Your task to perform on an android device: Open calendar and show me the first week of next month Image 0: 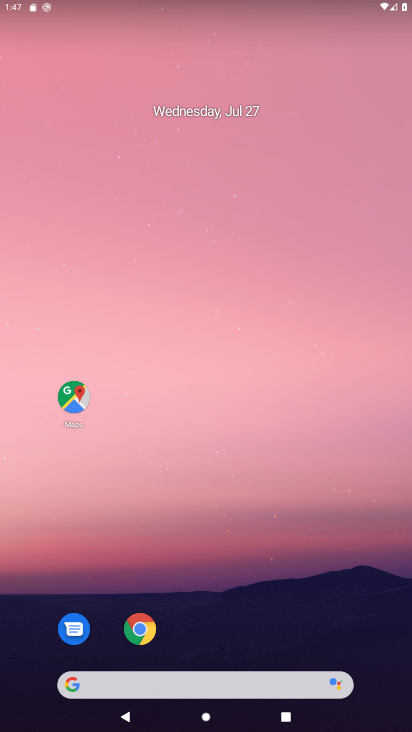
Step 0: drag from (256, 614) to (208, 75)
Your task to perform on an android device: Open calendar and show me the first week of next month Image 1: 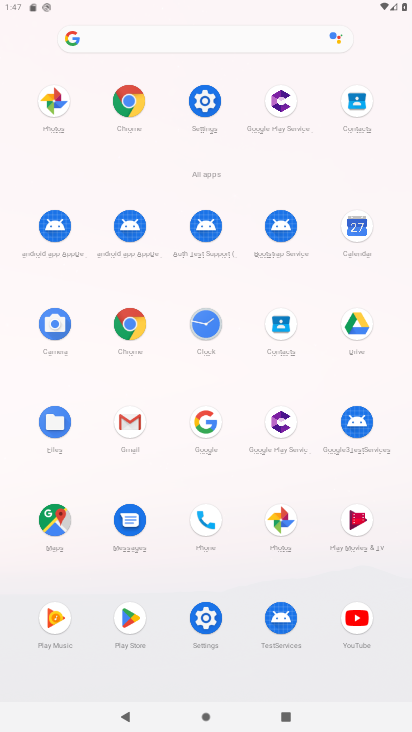
Step 1: click (352, 219)
Your task to perform on an android device: Open calendar and show me the first week of next month Image 2: 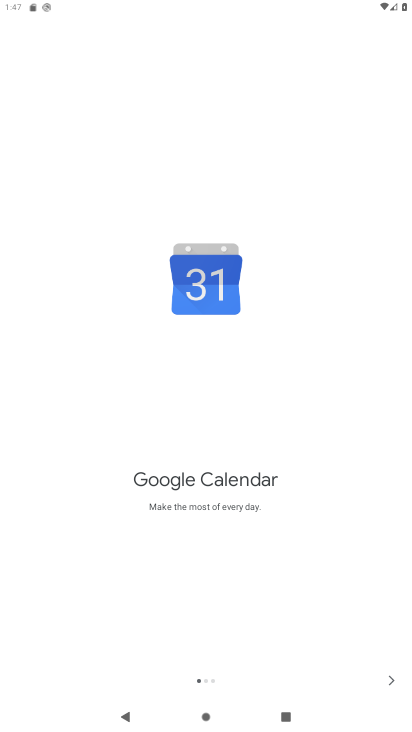
Step 2: click (391, 680)
Your task to perform on an android device: Open calendar and show me the first week of next month Image 3: 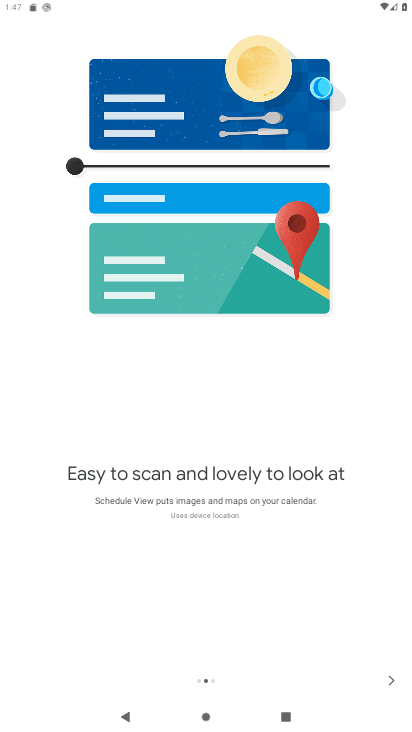
Step 3: click (391, 680)
Your task to perform on an android device: Open calendar and show me the first week of next month Image 4: 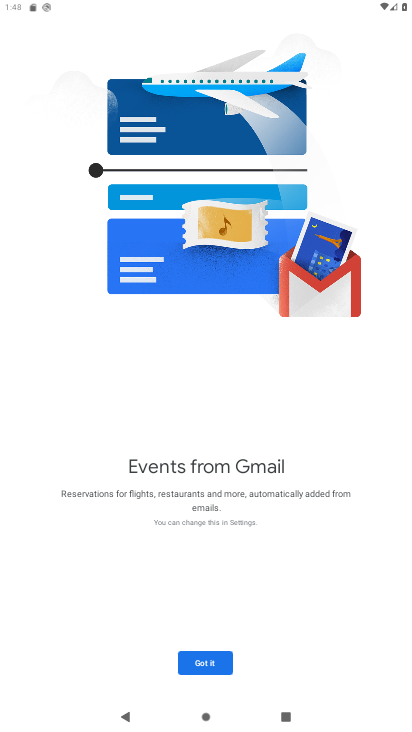
Step 4: click (193, 664)
Your task to perform on an android device: Open calendar and show me the first week of next month Image 5: 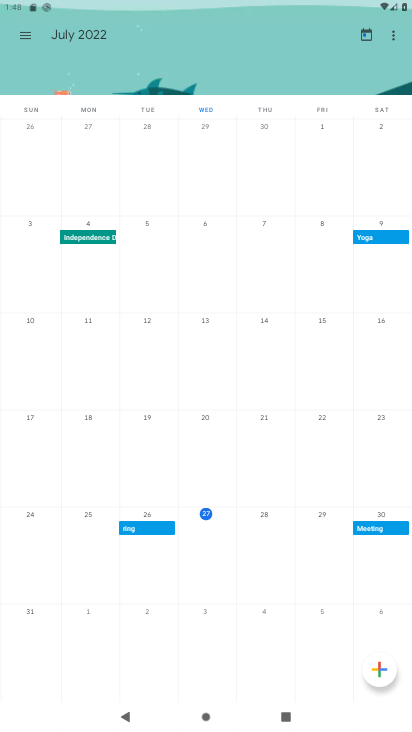
Step 5: drag from (385, 487) to (69, 474)
Your task to perform on an android device: Open calendar and show me the first week of next month Image 6: 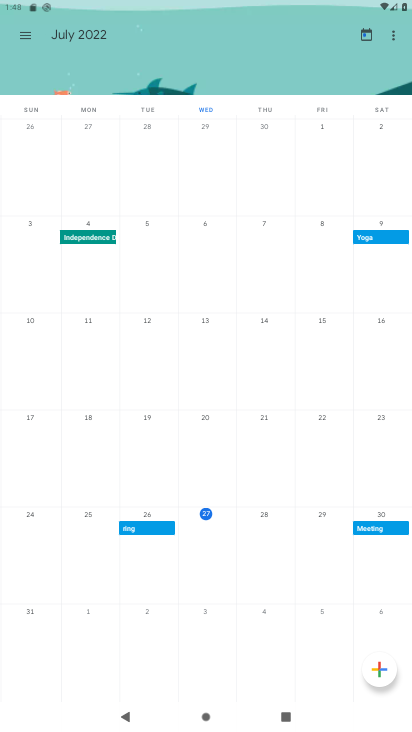
Step 6: drag from (390, 467) to (0, 469)
Your task to perform on an android device: Open calendar and show me the first week of next month Image 7: 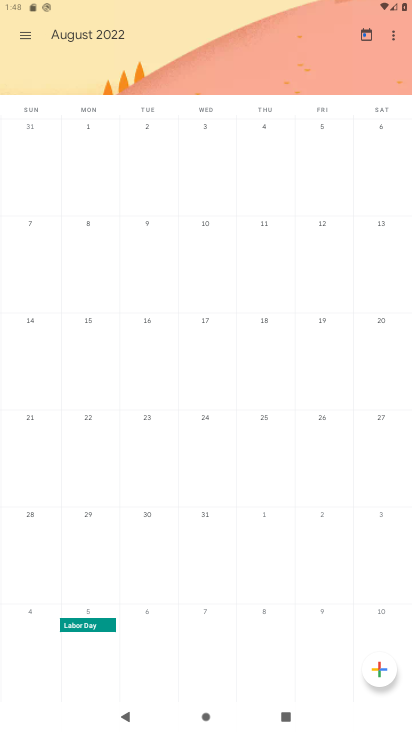
Step 7: click (101, 179)
Your task to perform on an android device: Open calendar and show me the first week of next month Image 8: 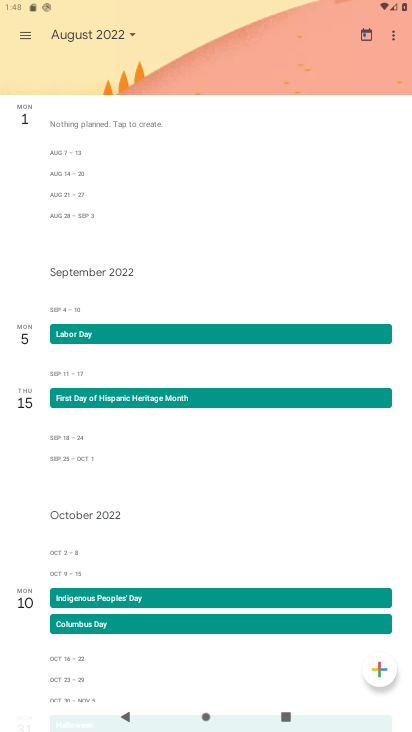
Step 8: task complete